Your task to perform on an android device: Go to internet settings Image 0: 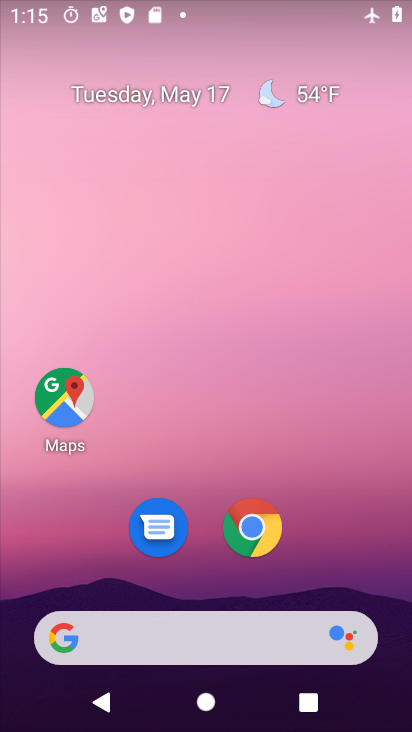
Step 0: press home button
Your task to perform on an android device: Go to internet settings Image 1: 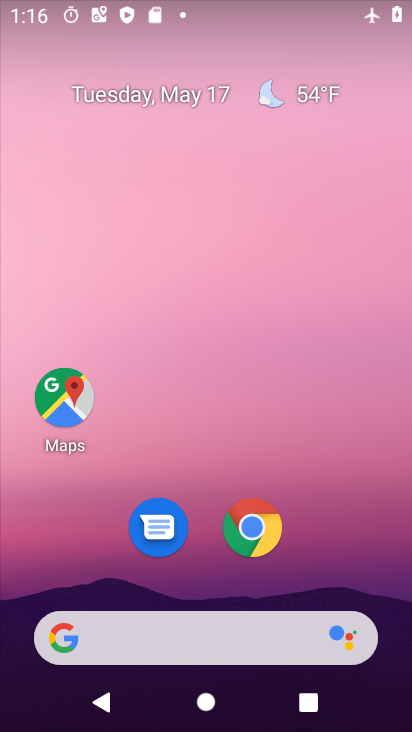
Step 1: drag from (318, 682) to (299, 178)
Your task to perform on an android device: Go to internet settings Image 2: 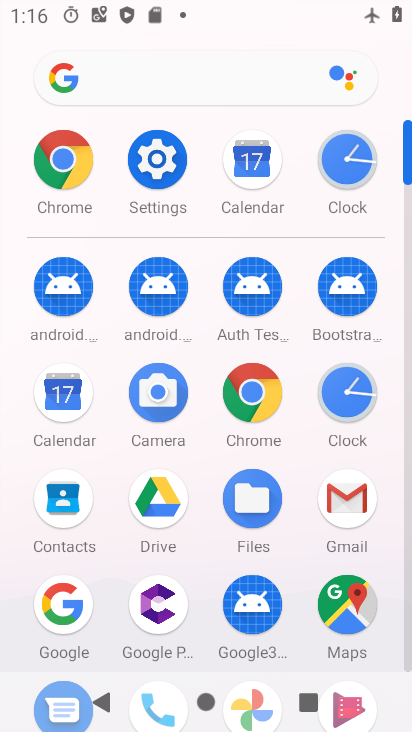
Step 2: click (178, 170)
Your task to perform on an android device: Go to internet settings Image 3: 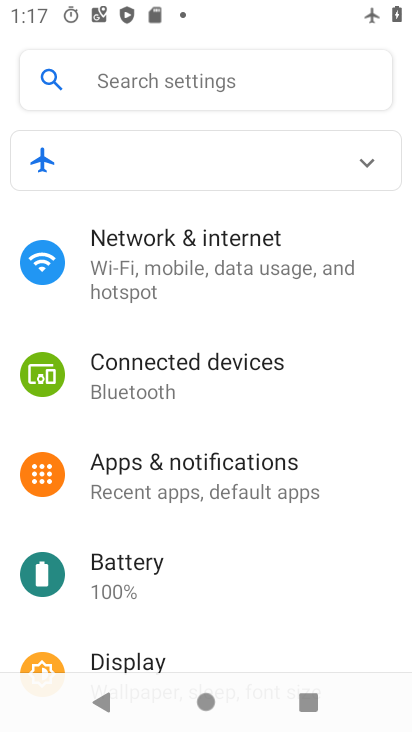
Step 3: click (200, 267)
Your task to perform on an android device: Go to internet settings Image 4: 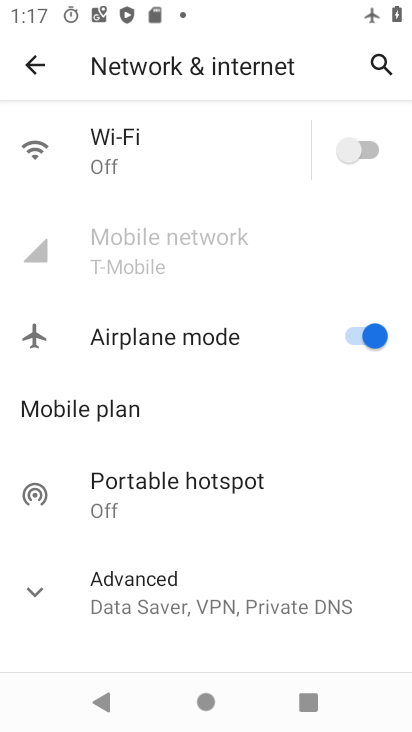
Step 4: click (362, 335)
Your task to perform on an android device: Go to internet settings Image 5: 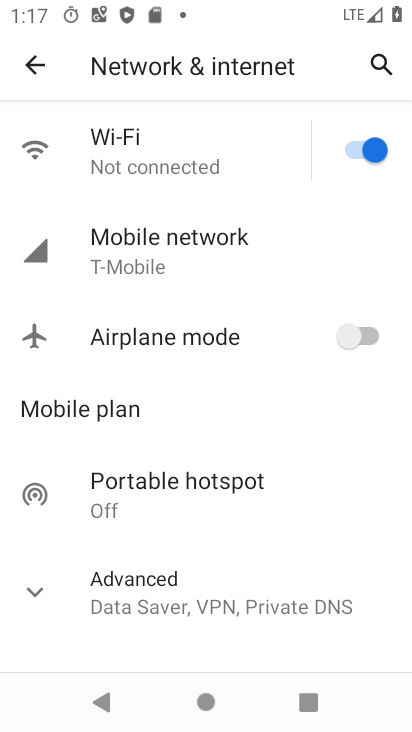
Step 5: click (361, 148)
Your task to perform on an android device: Go to internet settings Image 6: 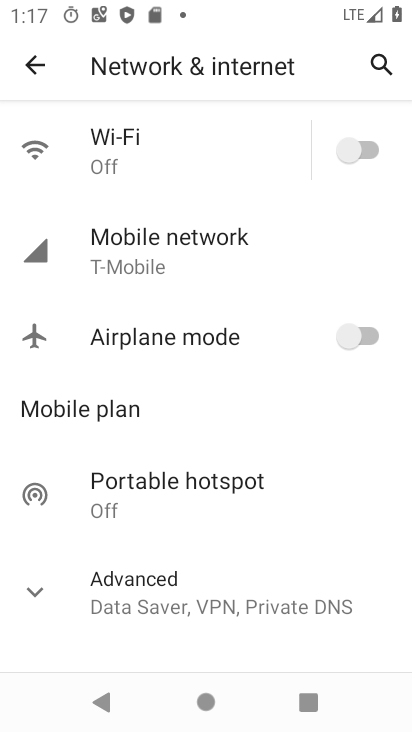
Step 6: click (355, 158)
Your task to perform on an android device: Go to internet settings Image 7: 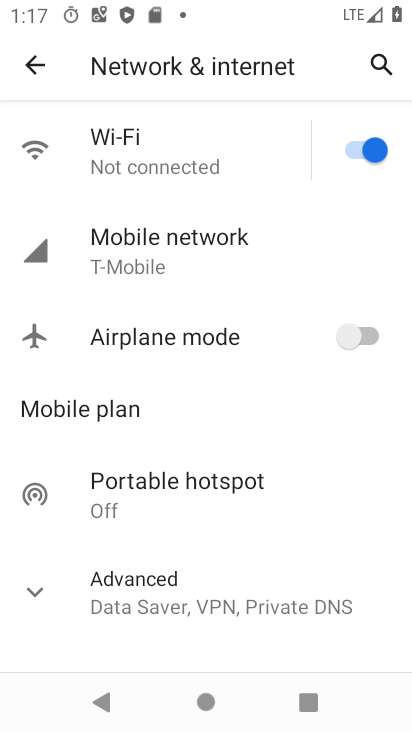
Step 7: task complete